Your task to perform on an android device: empty trash in the gmail app Image 0: 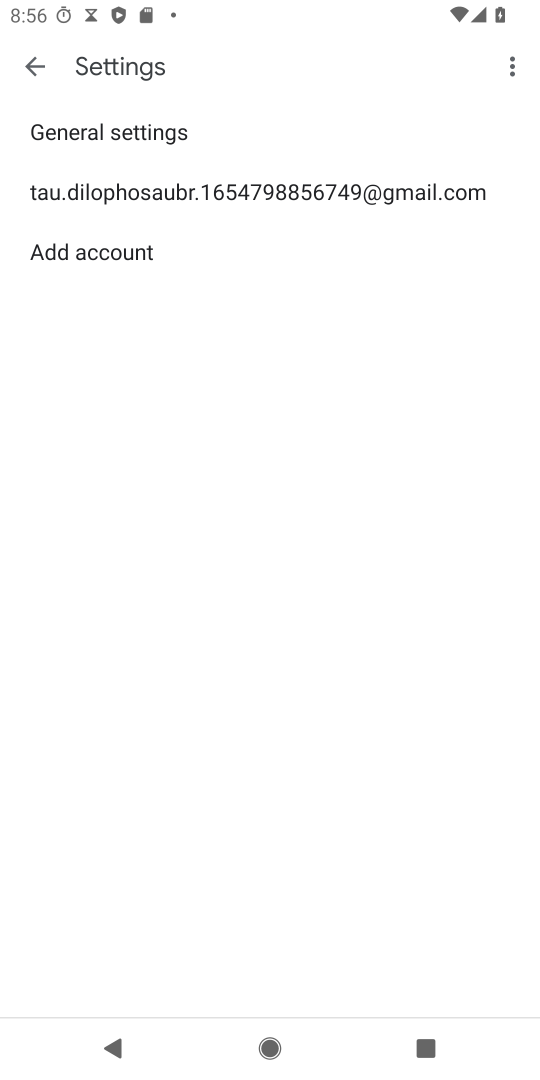
Step 0: press home button
Your task to perform on an android device: empty trash in the gmail app Image 1: 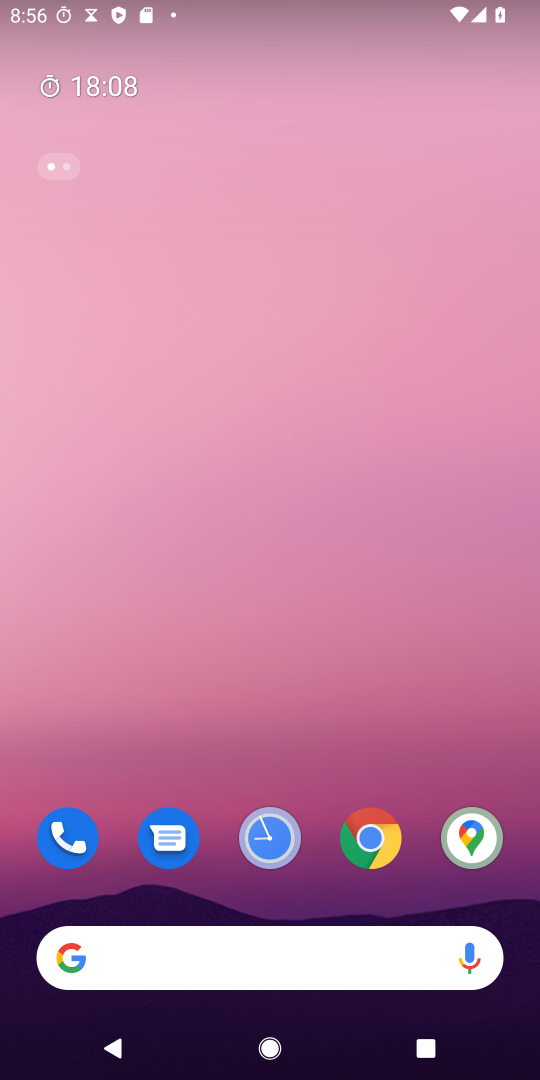
Step 1: drag from (330, 811) to (233, 310)
Your task to perform on an android device: empty trash in the gmail app Image 2: 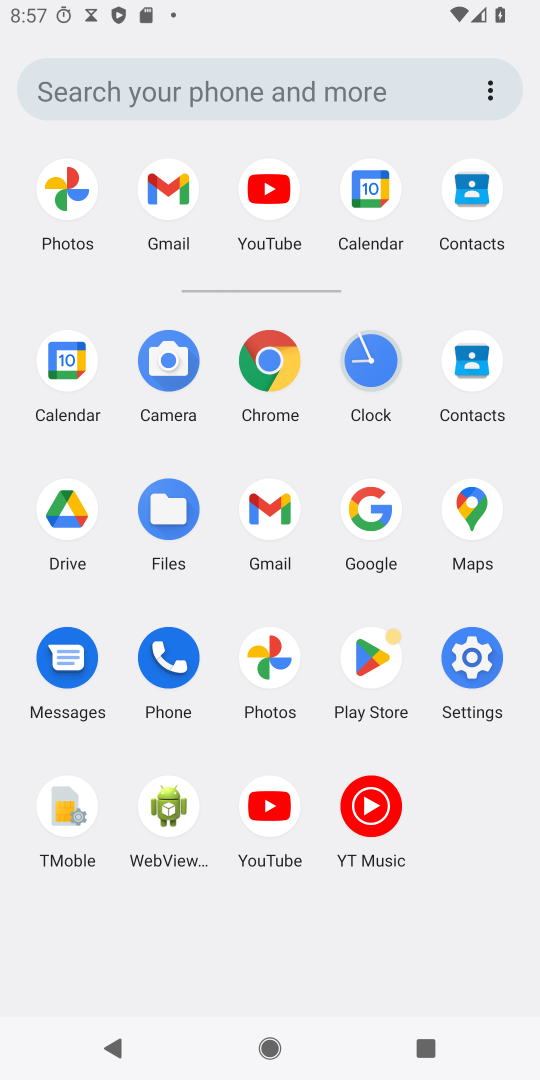
Step 2: press home button
Your task to perform on an android device: empty trash in the gmail app Image 3: 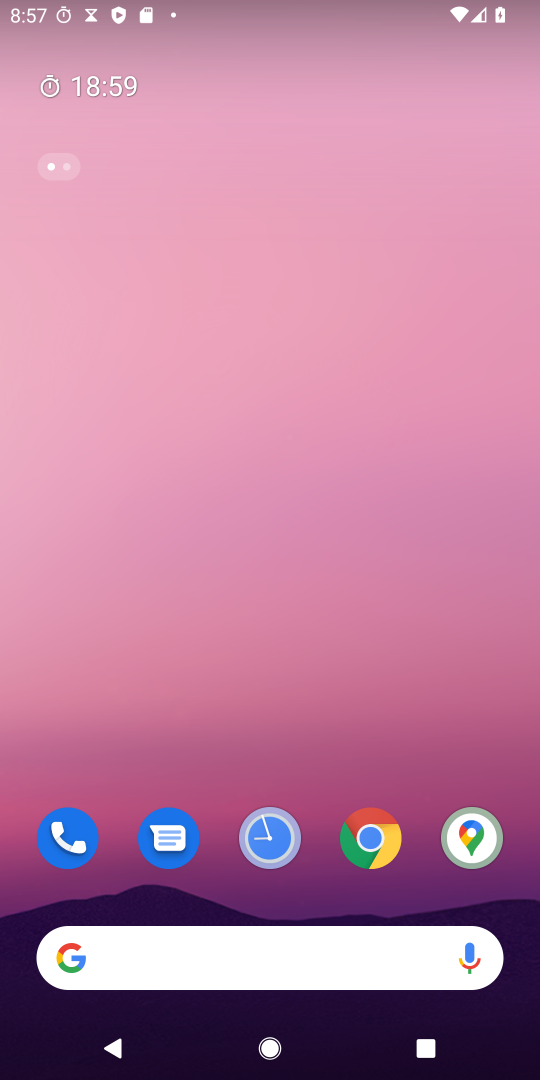
Step 3: drag from (199, 143) to (19, 480)
Your task to perform on an android device: empty trash in the gmail app Image 4: 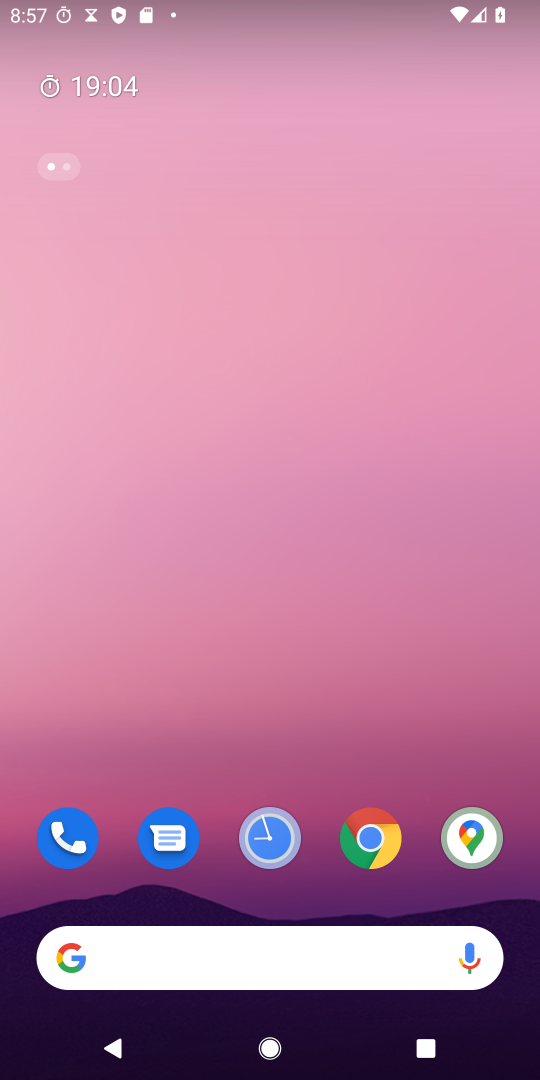
Step 4: drag from (202, 450) to (183, 150)
Your task to perform on an android device: empty trash in the gmail app Image 5: 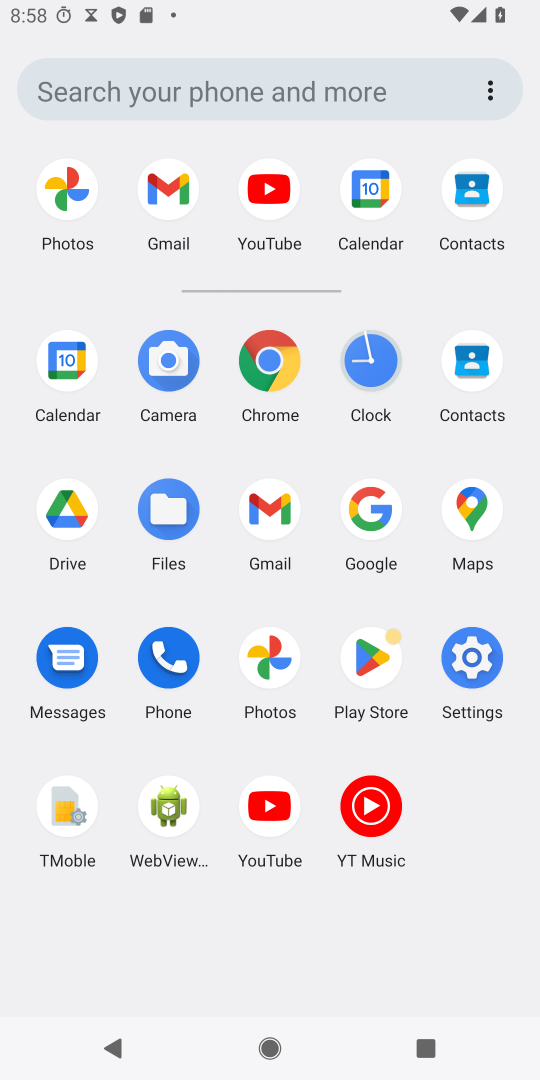
Step 5: click (287, 529)
Your task to perform on an android device: empty trash in the gmail app Image 6: 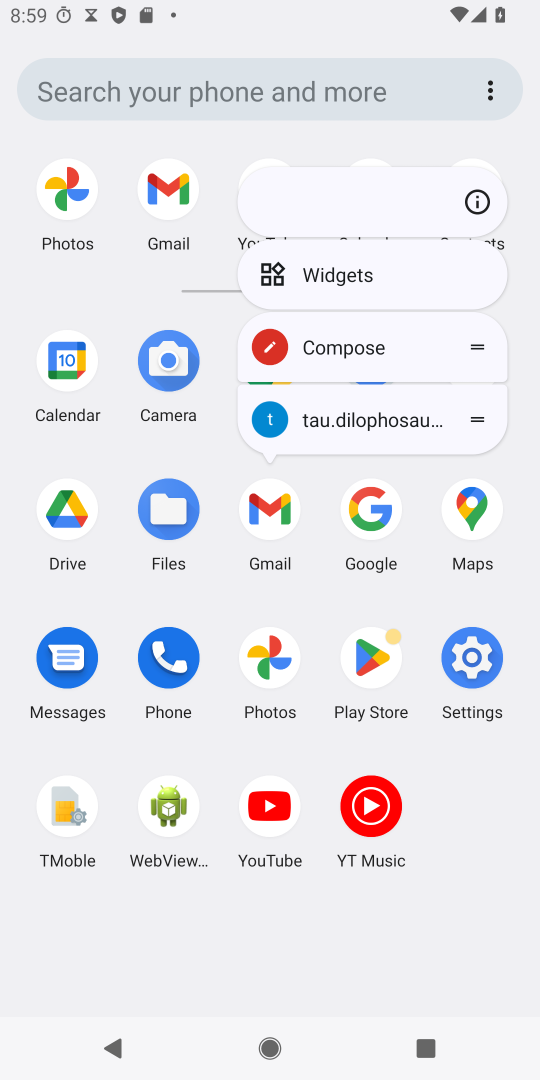
Step 6: click (271, 498)
Your task to perform on an android device: empty trash in the gmail app Image 7: 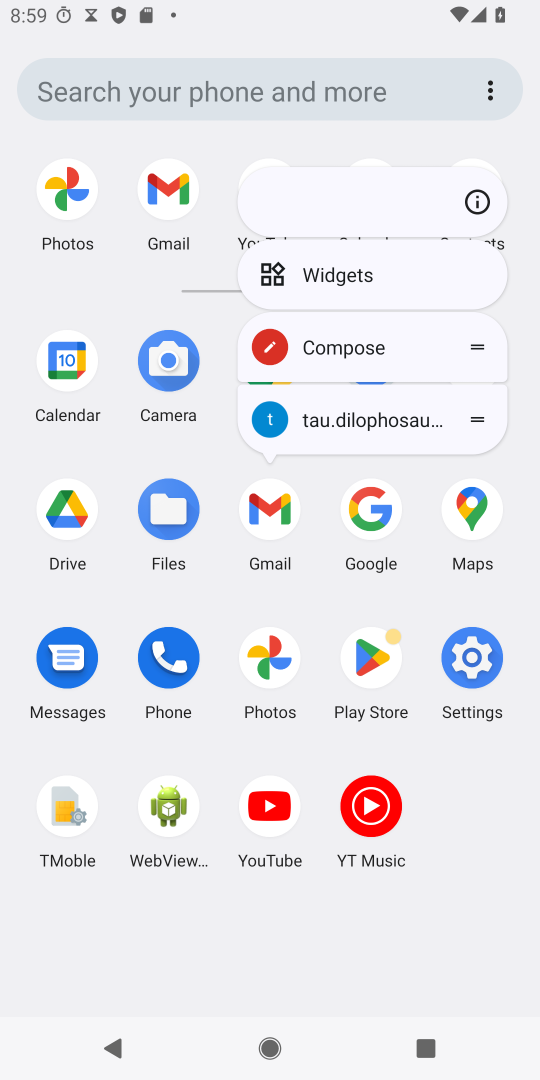
Step 7: click (271, 498)
Your task to perform on an android device: empty trash in the gmail app Image 8: 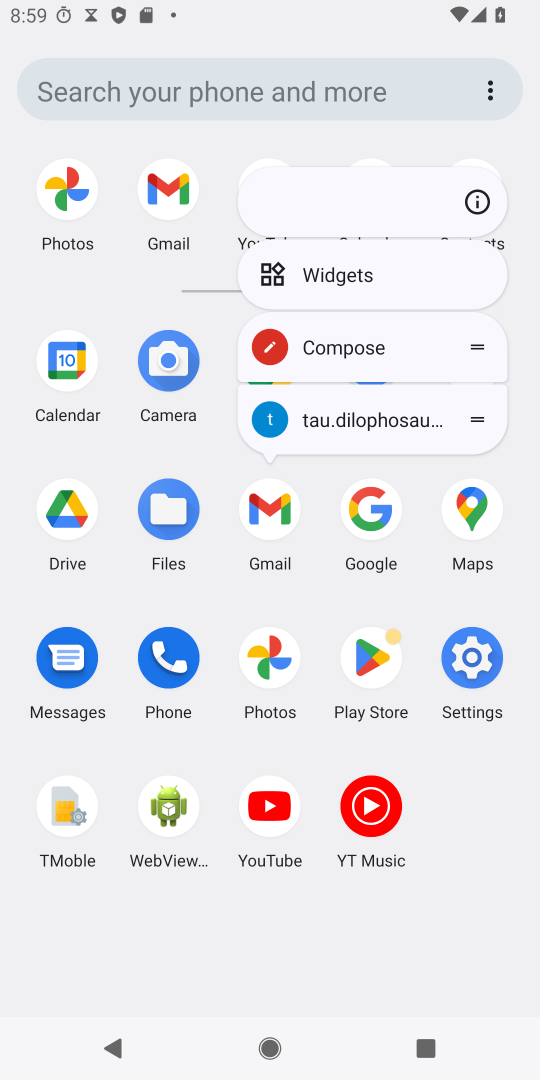
Step 8: click (271, 498)
Your task to perform on an android device: empty trash in the gmail app Image 9: 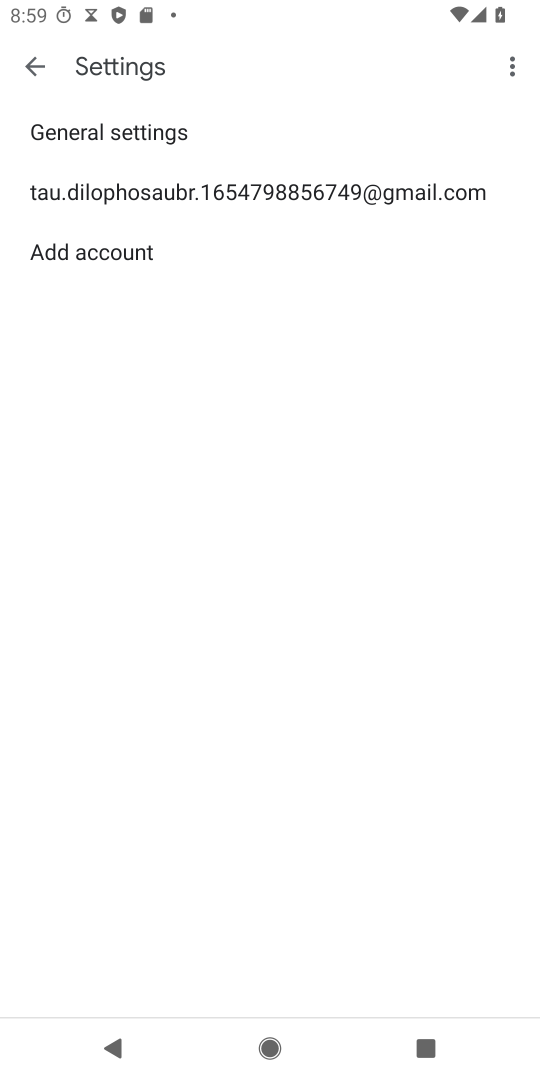
Step 9: click (31, 79)
Your task to perform on an android device: empty trash in the gmail app Image 10: 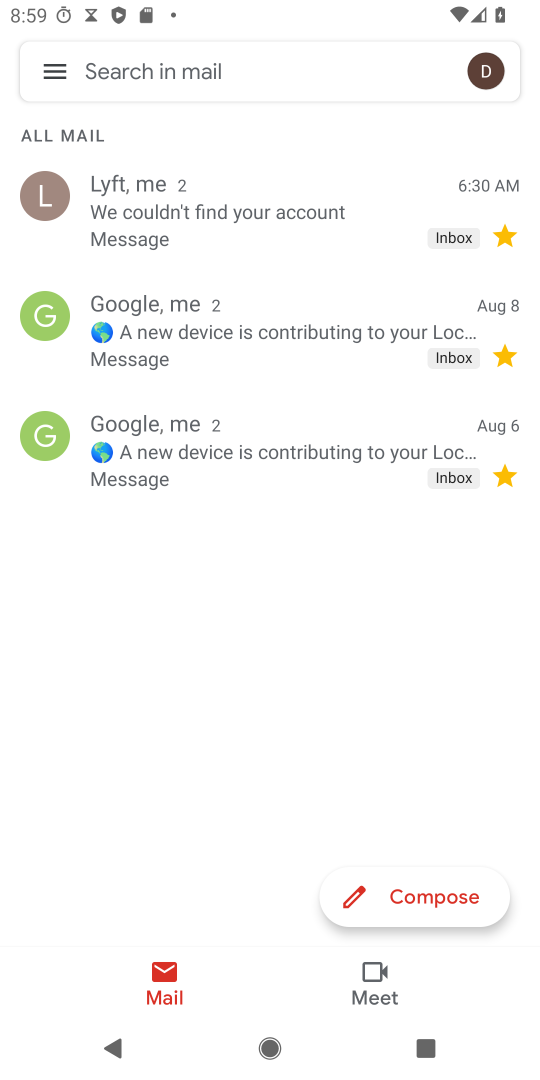
Step 10: click (38, 85)
Your task to perform on an android device: empty trash in the gmail app Image 11: 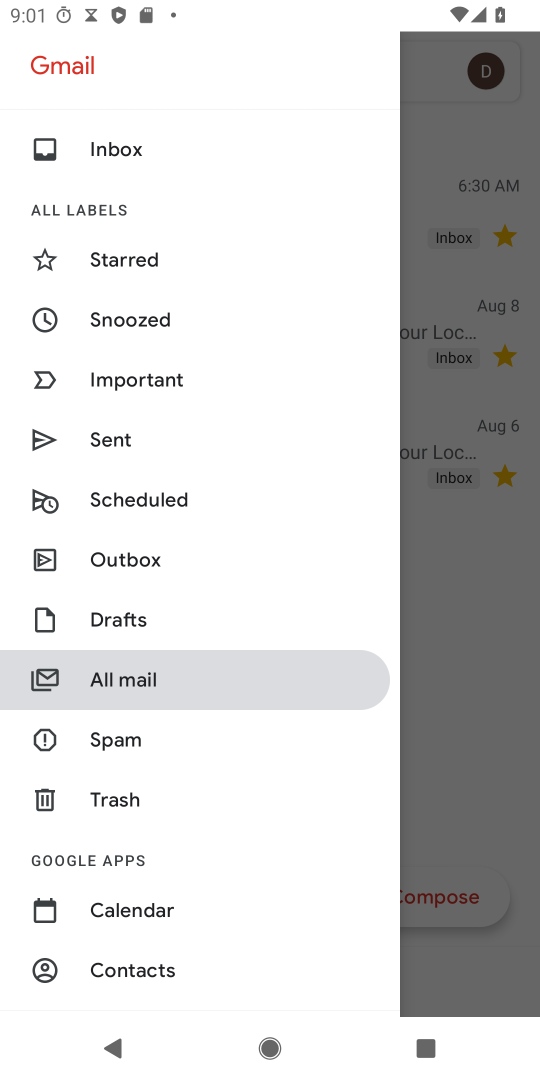
Step 11: click (97, 801)
Your task to perform on an android device: empty trash in the gmail app Image 12: 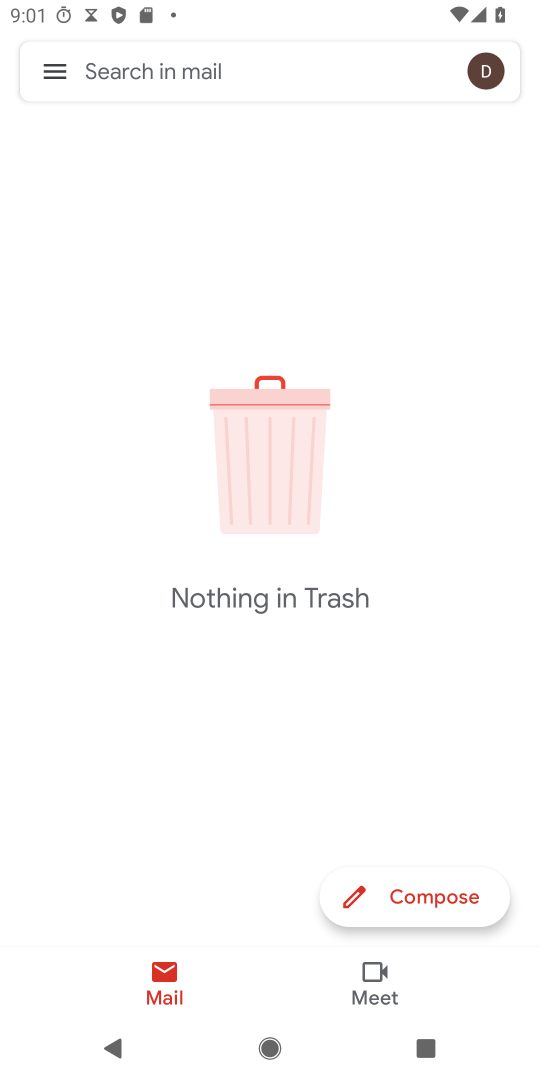
Step 12: task complete